Your task to perform on an android device: Search for seafood restaurants on Google Maps Image 0: 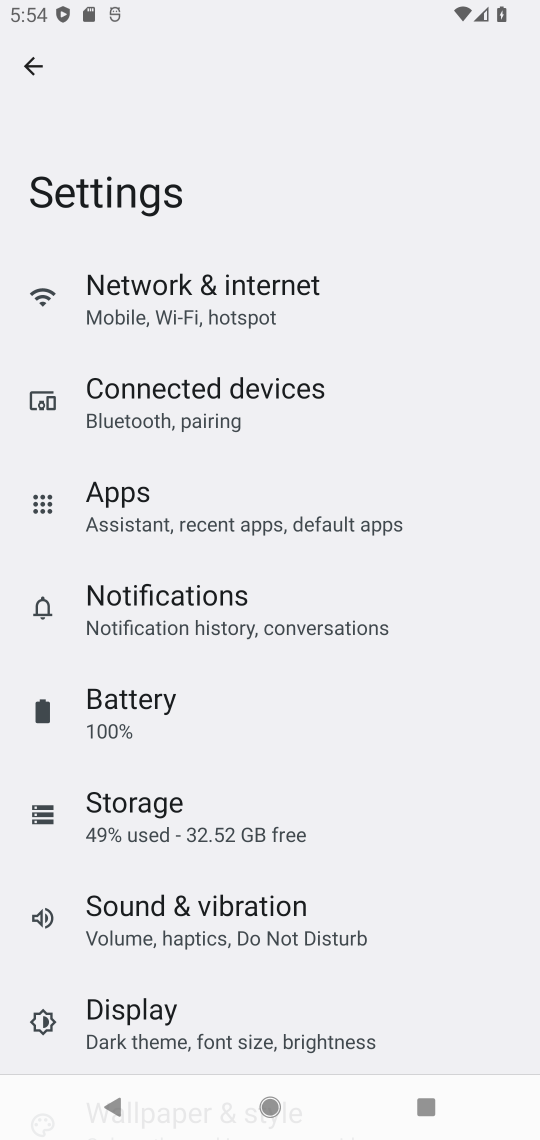
Step 0: press home button
Your task to perform on an android device: Search for seafood restaurants on Google Maps Image 1: 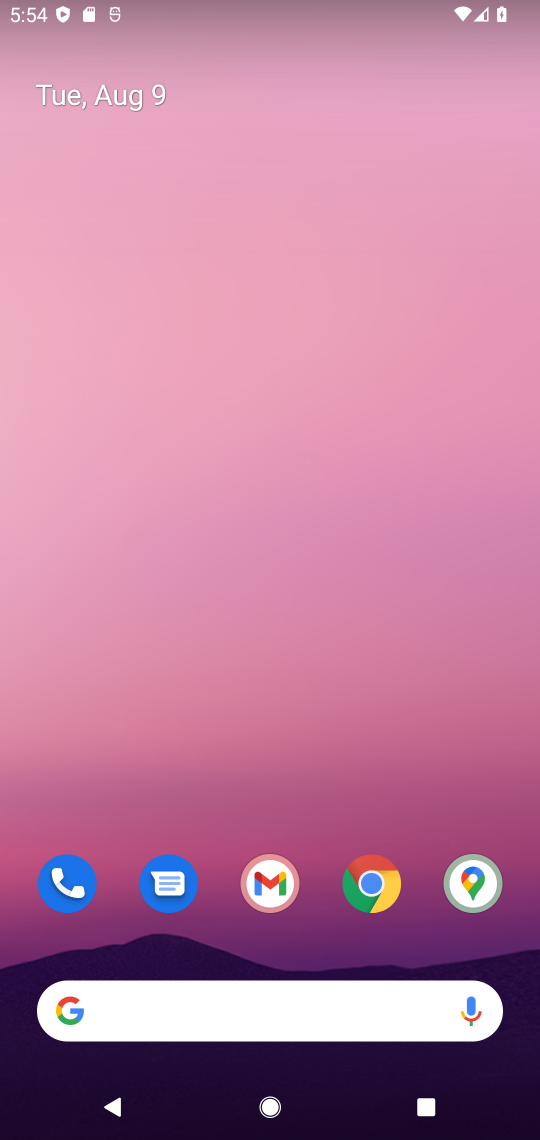
Step 1: click (470, 870)
Your task to perform on an android device: Search for seafood restaurants on Google Maps Image 2: 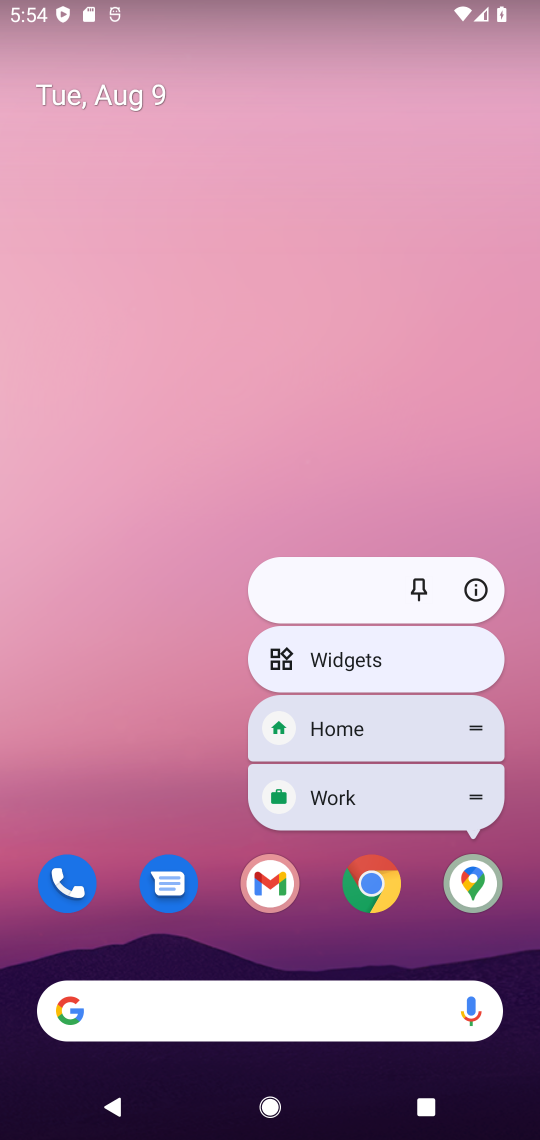
Step 2: click (446, 872)
Your task to perform on an android device: Search for seafood restaurants on Google Maps Image 3: 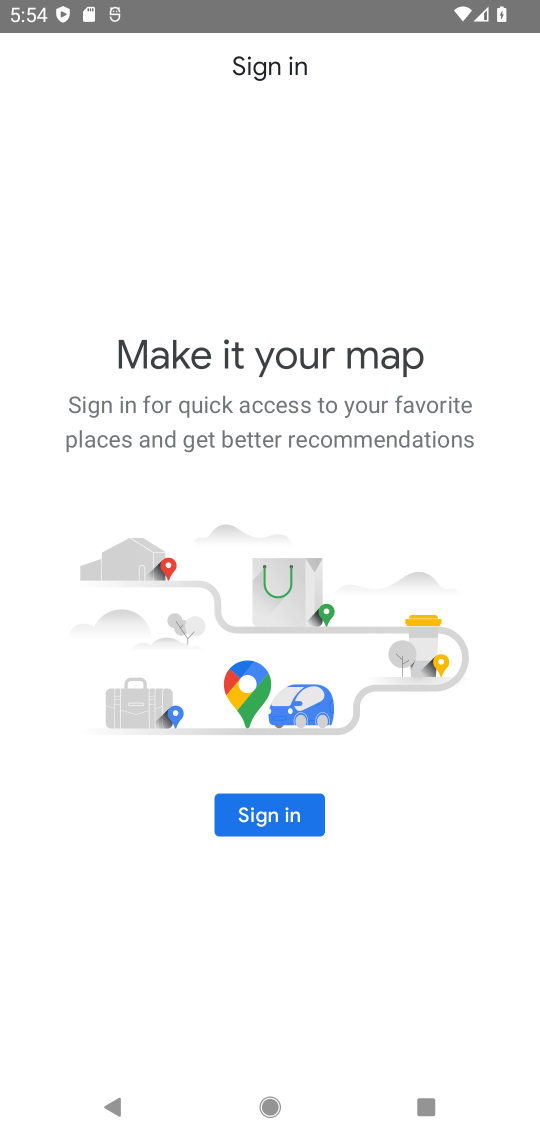
Step 3: task complete